Your task to perform on an android device: Open Yahoo.com Image 0: 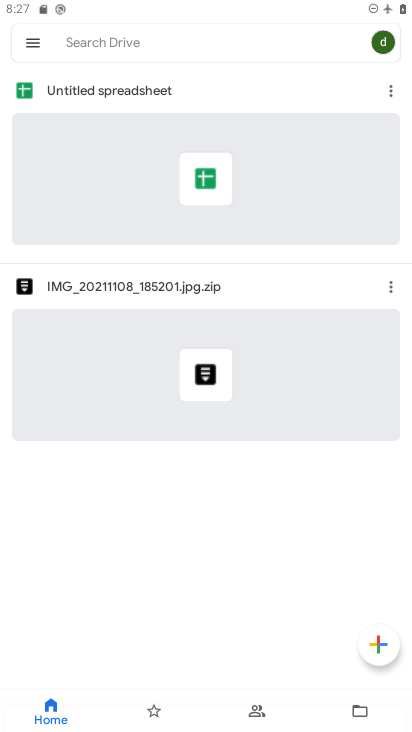
Step 0: press home button
Your task to perform on an android device: Open Yahoo.com Image 1: 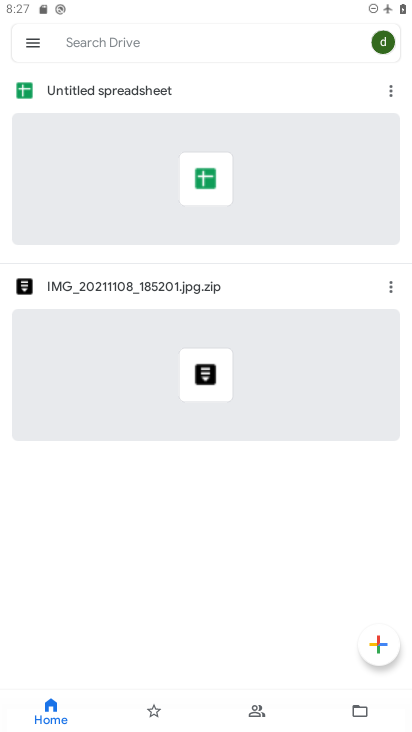
Step 1: press home button
Your task to perform on an android device: Open Yahoo.com Image 2: 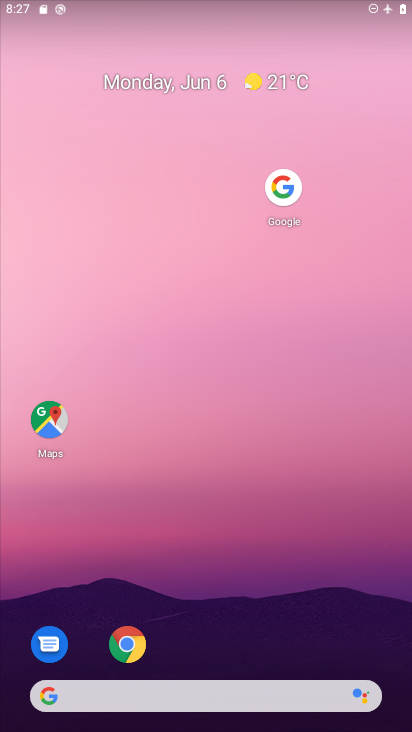
Step 2: click (136, 655)
Your task to perform on an android device: Open Yahoo.com Image 3: 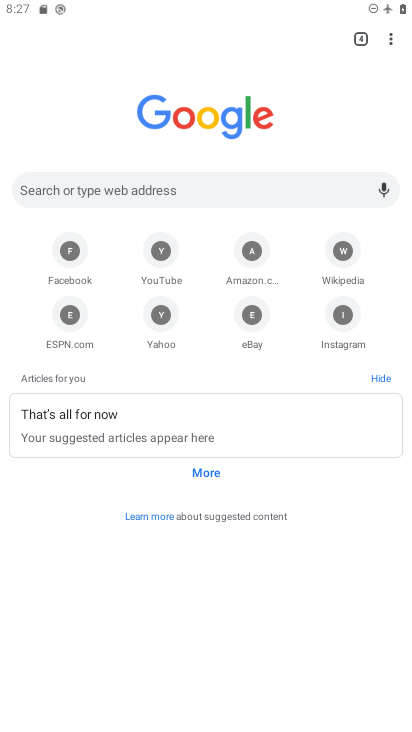
Step 3: click (153, 329)
Your task to perform on an android device: Open Yahoo.com Image 4: 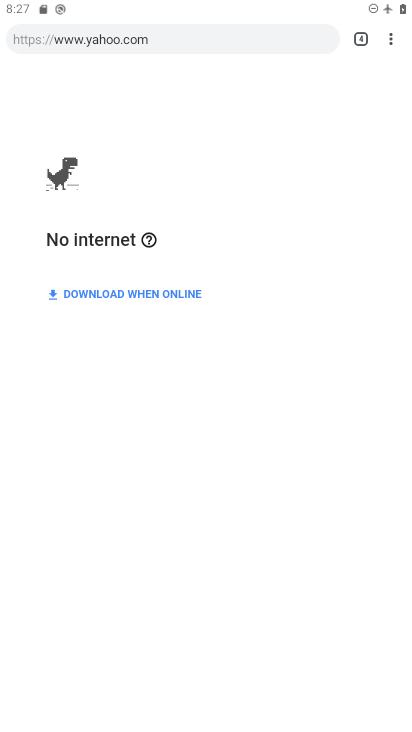
Step 4: task complete